Your task to perform on an android device: allow cookies in the chrome app Image 0: 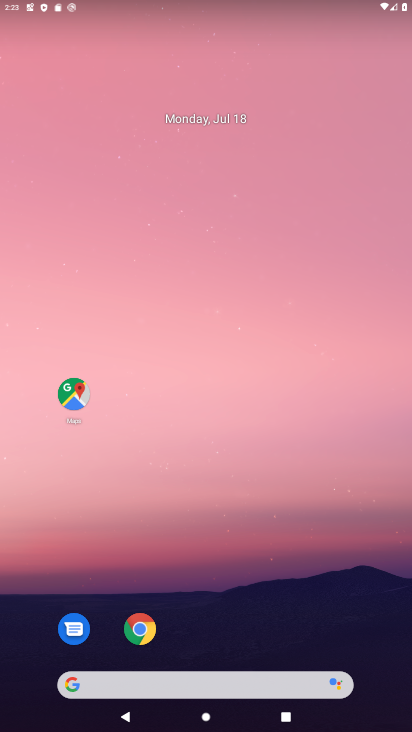
Step 0: drag from (226, 652) to (137, 11)
Your task to perform on an android device: allow cookies in the chrome app Image 1: 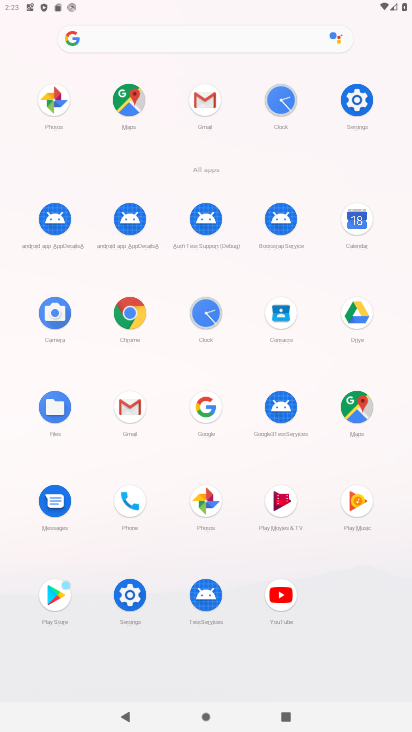
Step 1: click (124, 321)
Your task to perform on an android device: allow cookies in the chrome app Image 2: 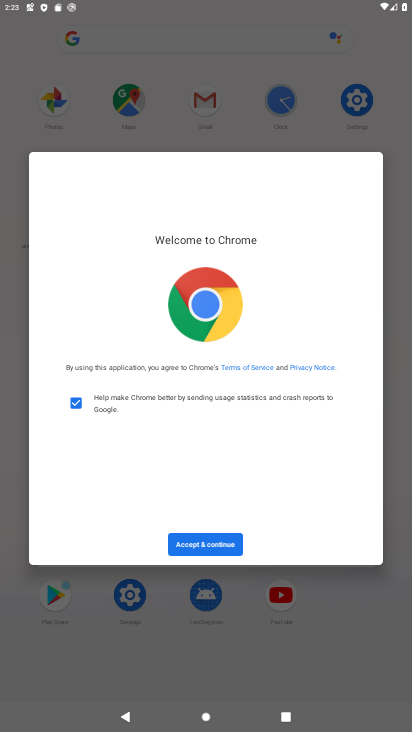
Step 2: click (212, 536)
Your task to perform on an android device: allow cookies in the chrome app Image 3: 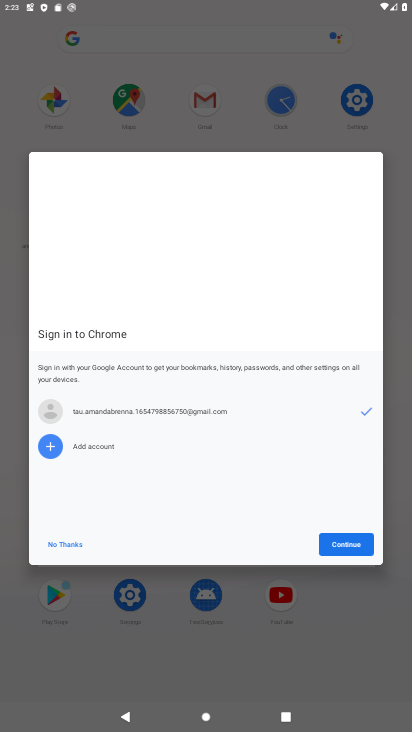
Step 3: click (344, 536)
Your task to perform on an android device: allow cookies in the chrome app Image 4: 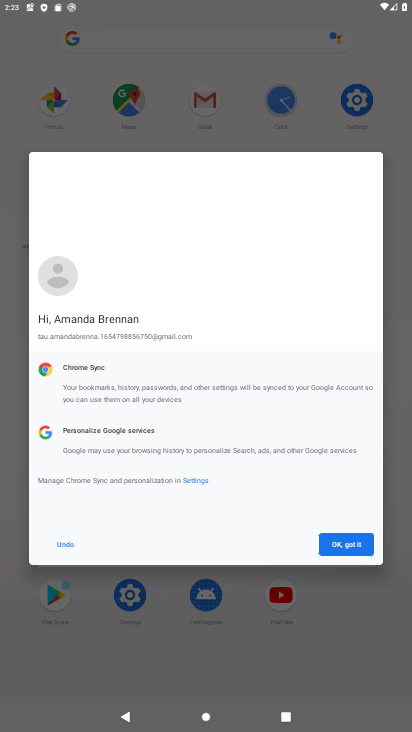
Step 4: click (342, 535)
Your task to perform on an android device: allow cookies in the chrome app Image 5: 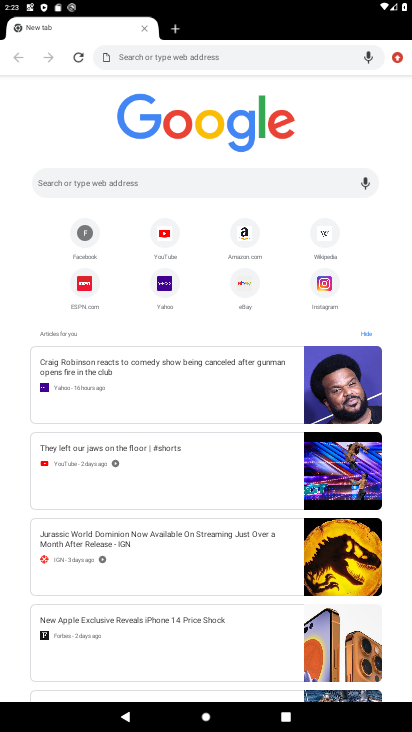
Step 5: drag from (397, 57) to (281, 302)
Your task to perform on an android device: allow cookies in the chrome app Image 6: 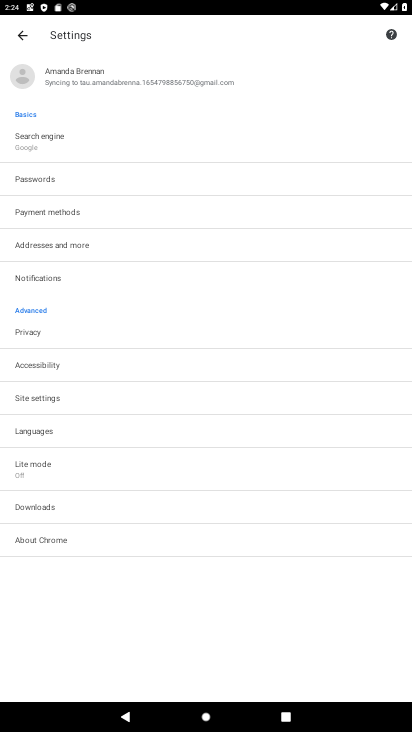
Step 6: click (31, 343)
Your task to perform on an android device: allow cookies in the chrome app Image 7: 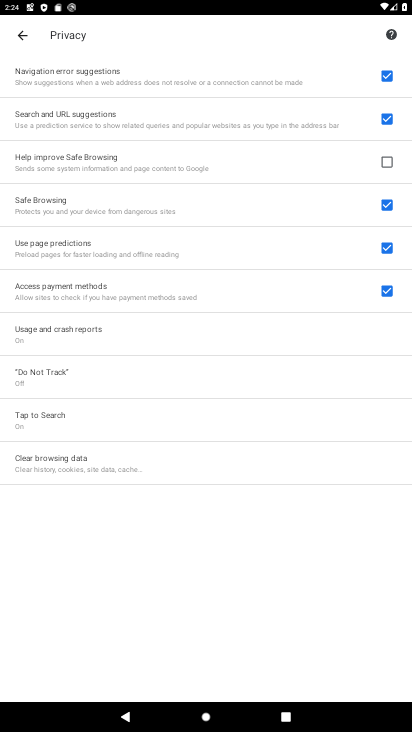
Step 7: click (52, 461)
Your task to perform on an android device: allow cookies in the chrome app Image 8: 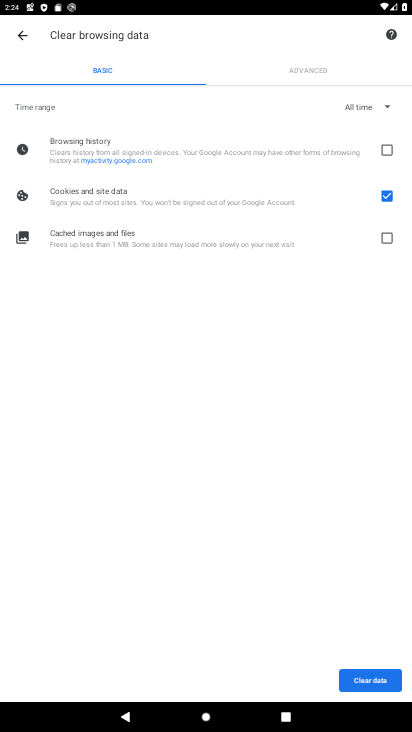
Step 8: click (389, 235)
Your task to perform on an android device: allow cookies in the chrome app Image 9: 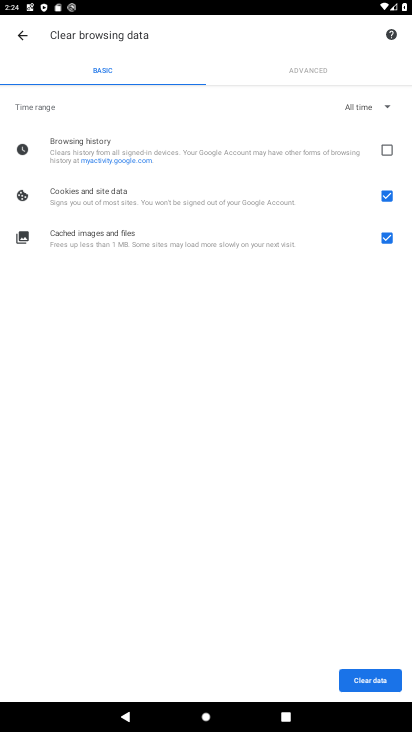
Step 9: click (379, 148)
Your task to perform on an android device: allow cookies in the chrome app Image 10: 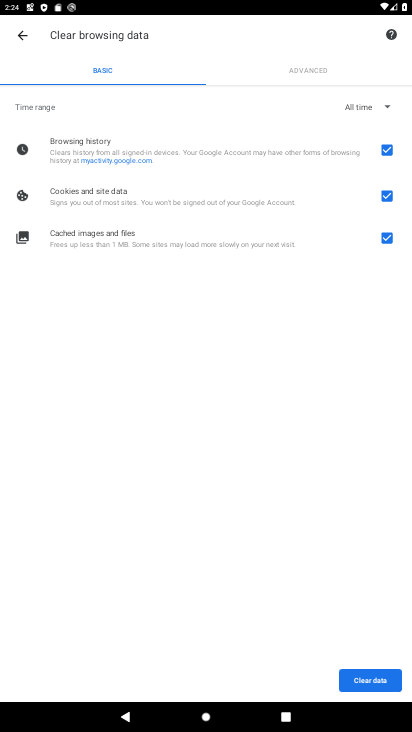
Step 10: click (372, 672)
Your task to perform on an android device: allow cookies in the chrome app Image 11: 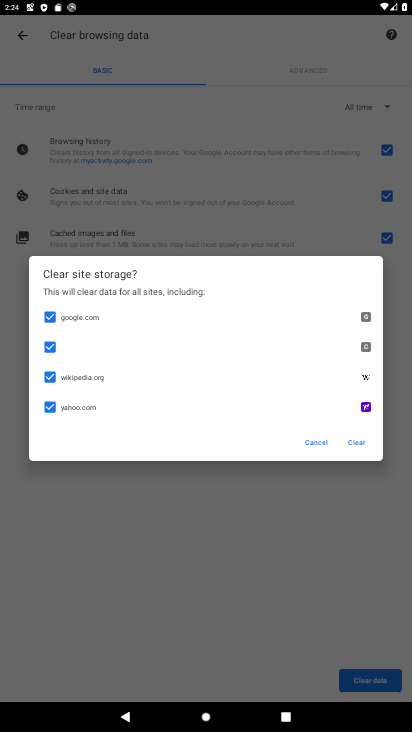
Step 11: click (358, 433)
Your task to perform on an android device: allow cookies in the chrome app Image 12: 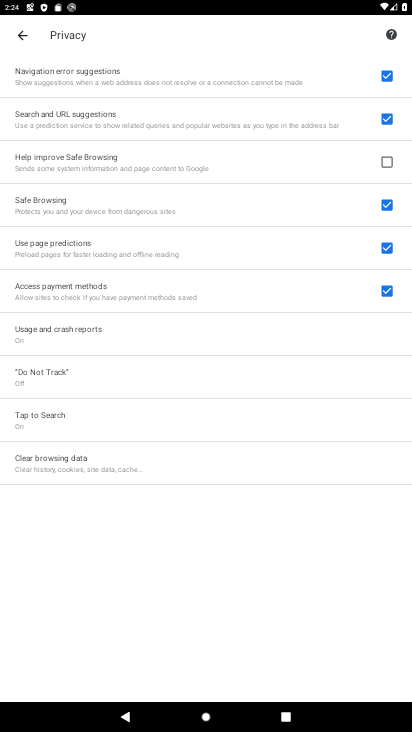
Step 12: task complete